Your task to perform on an android device: Clear the shopping cart on target.com. Search for macbook air on target.com, select the first entry, add it to the cart, then select checkout. Image 0: 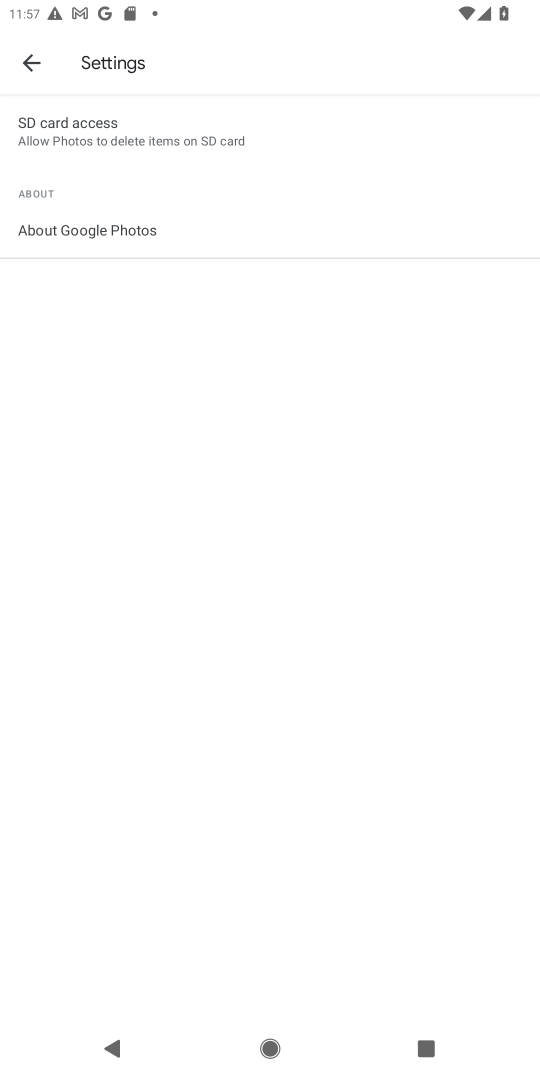
Step 0: press home button
Your task to perform on an android device: Clear the shopping cart on target.com. Search for macbook air on target.com, select the first entry, add it to the cart, then select checkout. Image 1: 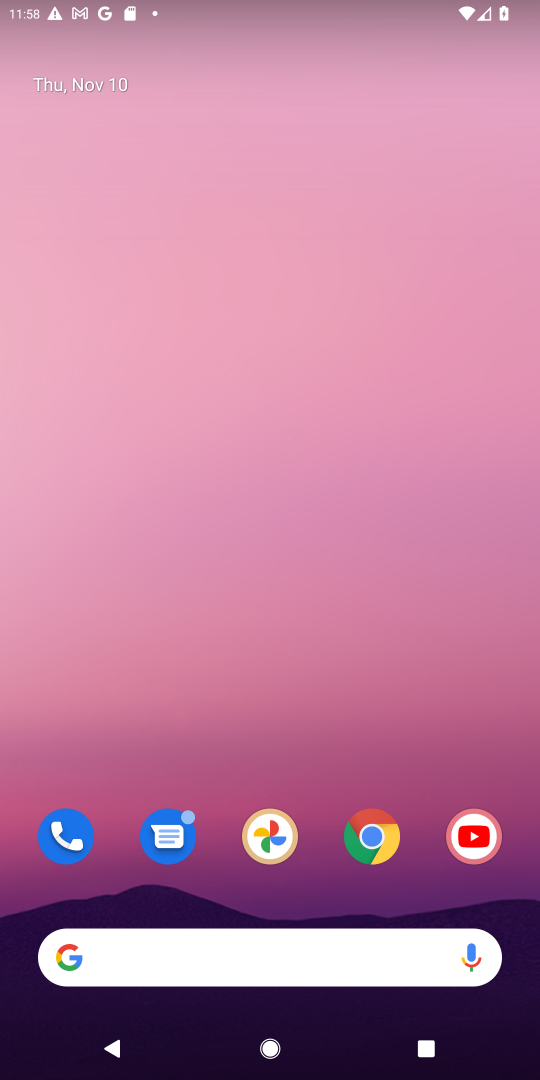
Step 1: click (244, 953)
Your task to perform on an android device: Clear the shopping cart on target.com. Search for macbook air on target.com, select the first entry, add it to the cart, then select checkout. Image 2: 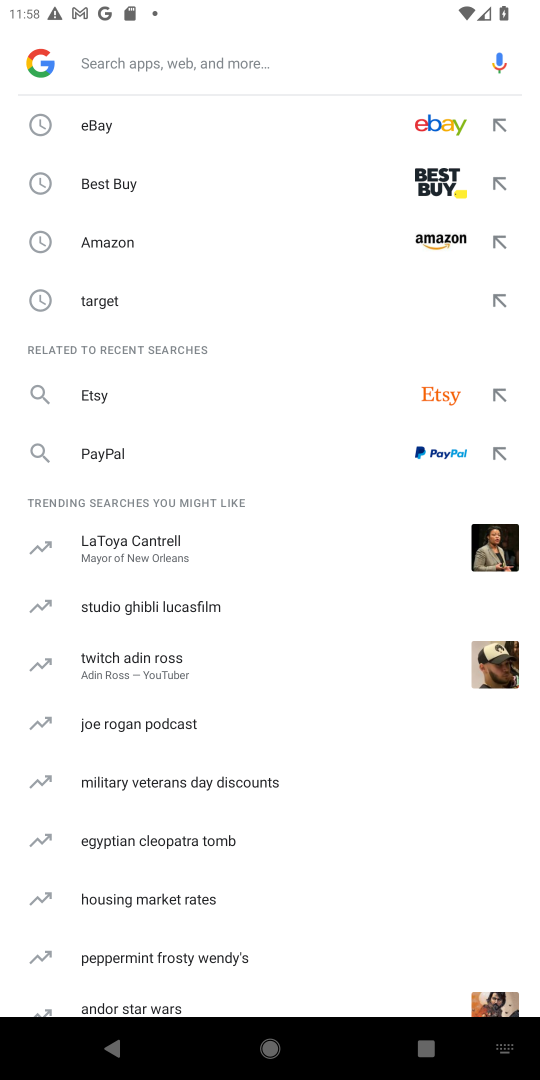
Step 2: type "target.com"
Your task to perform on an android device: Clear the shopping cart on target.com. Search for macbook air on target.com, select the first entry, add it to the cart, then select checkout. Image 3: 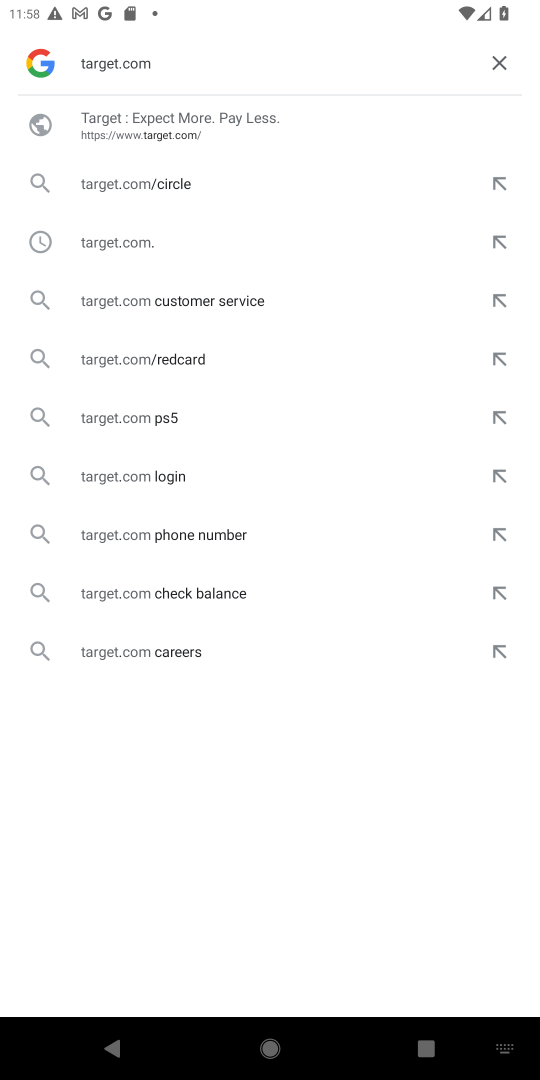
Step 3: click (167, 133)
Your task to perform on an android device: Clear the shopping cart on target.com. Search for macbook air on target.com, select the first entry, add it to the cart, then select checkout. Image 4: 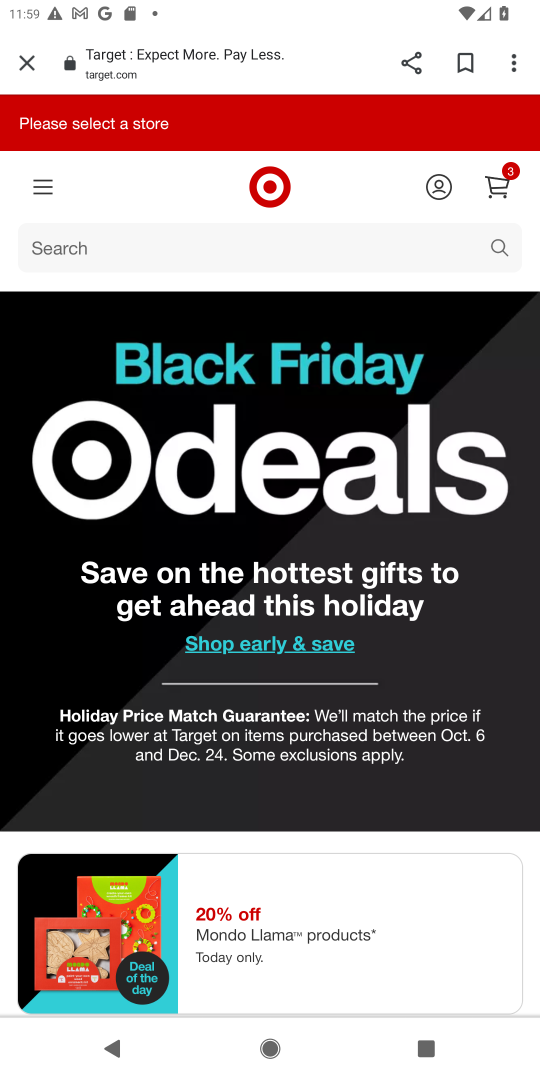
Step 4: click (105, 241)
Your task to perform on an android device: Clear the shopping cart on target.com. Search for macbook air on target.com, select the first entry, add it to the cart, then select checkout. Image 5: 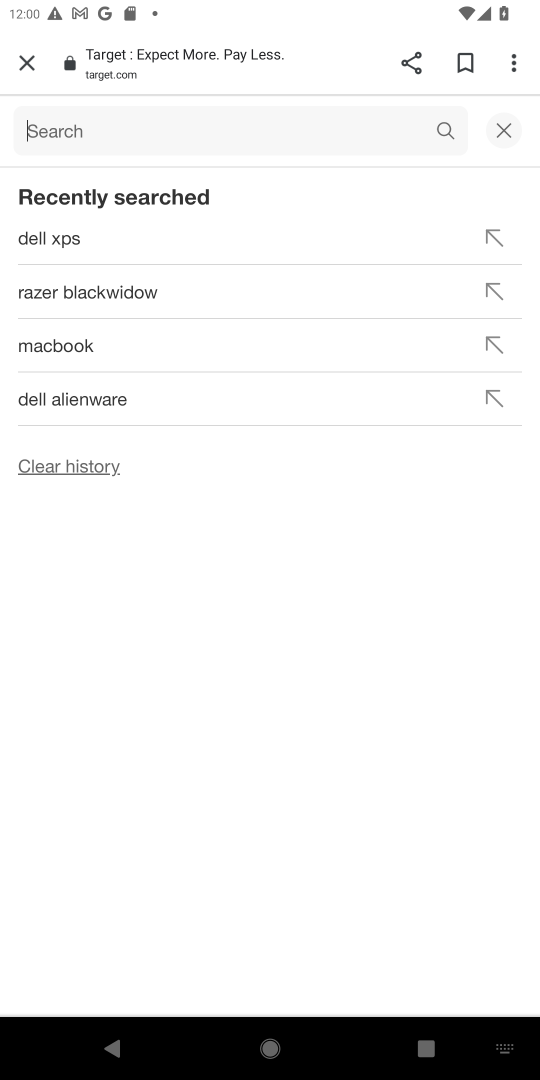
Step 5: type "macbook air"
Your task to perform on an android device: Clear the shopping cart on target.com. Search for macbook air on target.com, select the first entry, add it to the cart, then select checkout. Image 6: 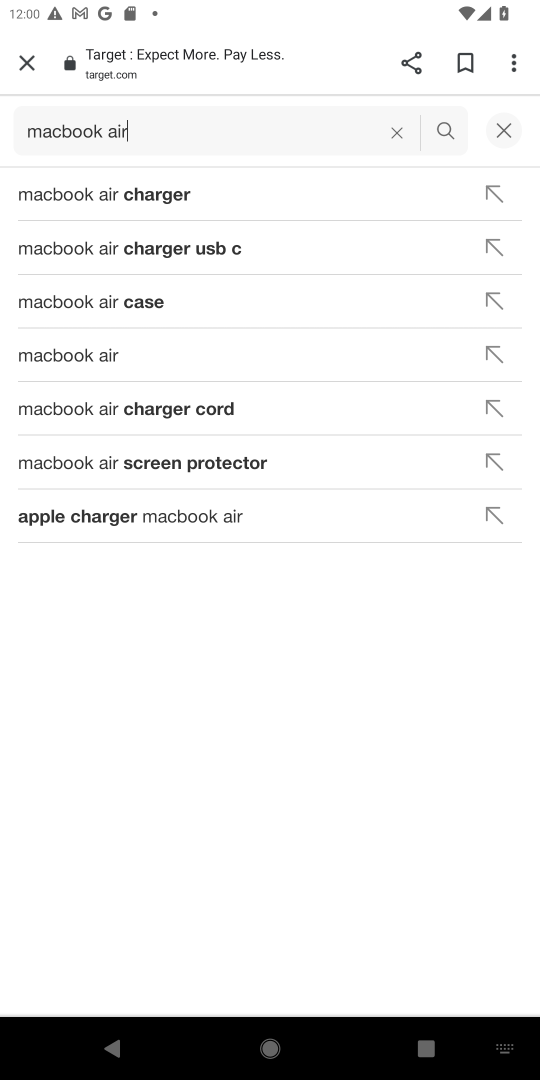
Step 6: click (102, 354)
Your task to perform on an android device: Clear the shopping cart on target.com. Search for macbook air on target.com, select the first entry, add it to the cart, then select checkout. Image 7: 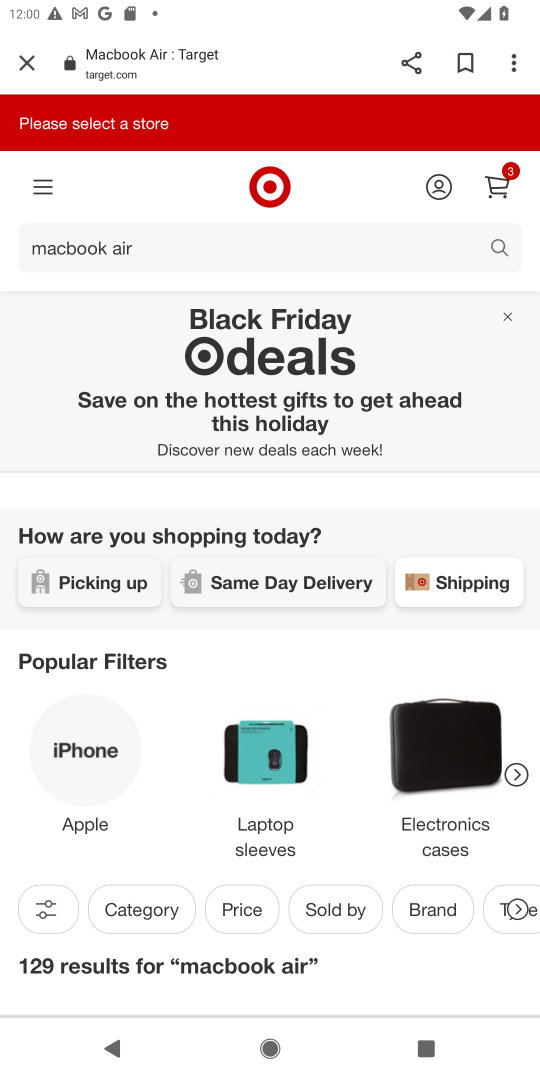
Step 7: drag from (184, 803) to (197, 414)
Your task to perform on an android device: Clear the shopping cart on target.com. Search for macbook air on target.com, select the first entry, add it to the cart, then select checkout. Image 8: 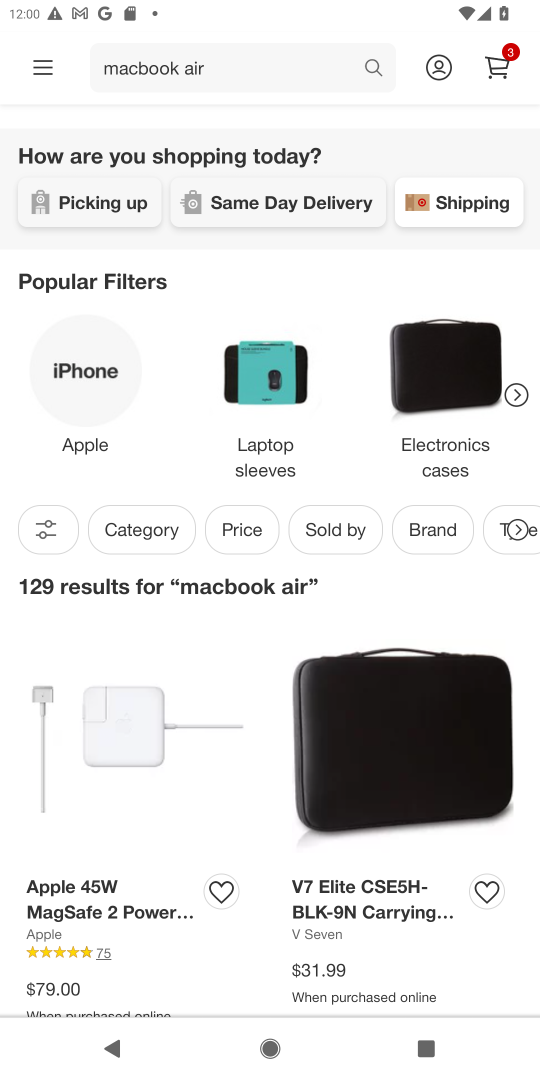
Step 8: click (119, 826)
Your task to perform on an android device: Clear the shopping cart on target.com. Search for macbook air on target.com, select the first entry, add it to the cart, then select checkout. Image 9: 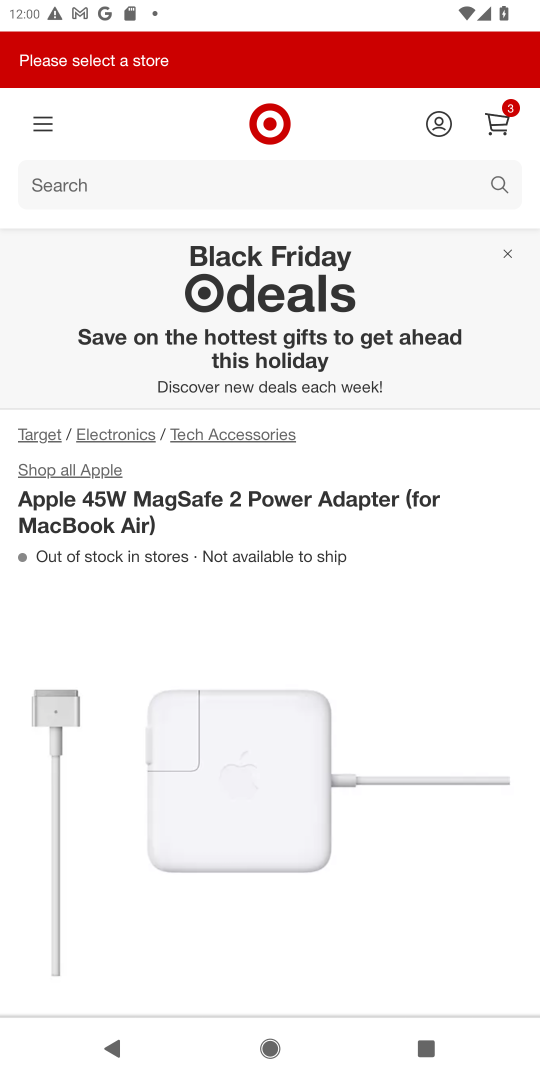
Step 9: drag from (230, 865) to (274, 579)
Your task to perform on an android device: Clear the shopping cart on target.com. Search for macbook air on target.com, select the first entry, add it to the cart, then select checkout. Image 10: 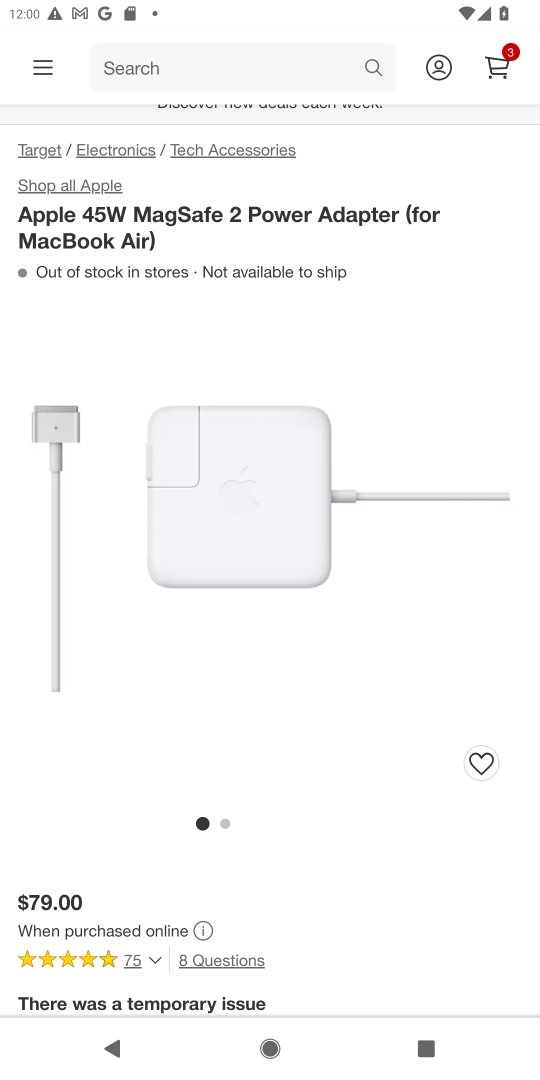
Step 10: drag from (274, 885) to (337, 470)
Your task to perform on an android device: Clear the shopping cart on target.com. Search for macbook air on target.com, select the first entry, add it to the cart, then select checkout. Image 11: 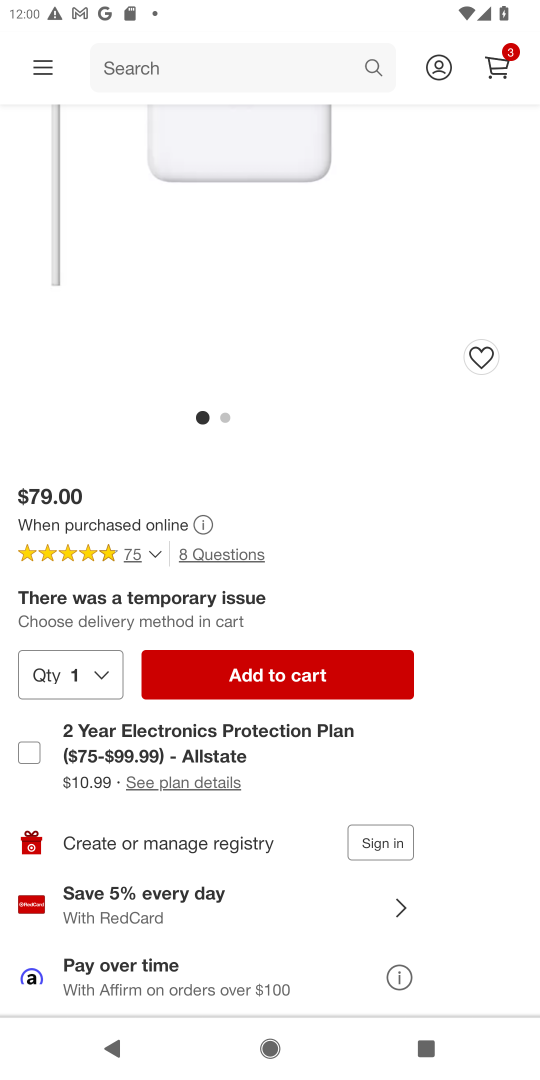
Step 11: click (268, 675)
Your task to perform on an android device: Clear the shopping cart on target.com. Search for macbook air on target.com, select the first entry, add it to the cart, then select checkout. Image 12: 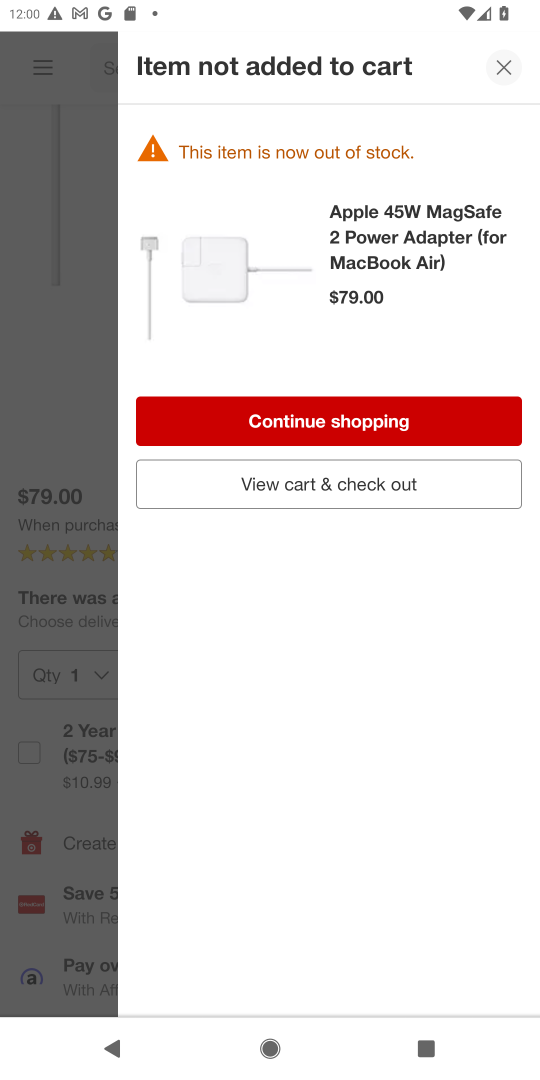
Step 12: click (498, 63)
Your task to perform on an android device: Clear the shopping cart on target.com. Search for macbook air on target.com, select the first entry, add it to the cart, then select checkout. Image 13: 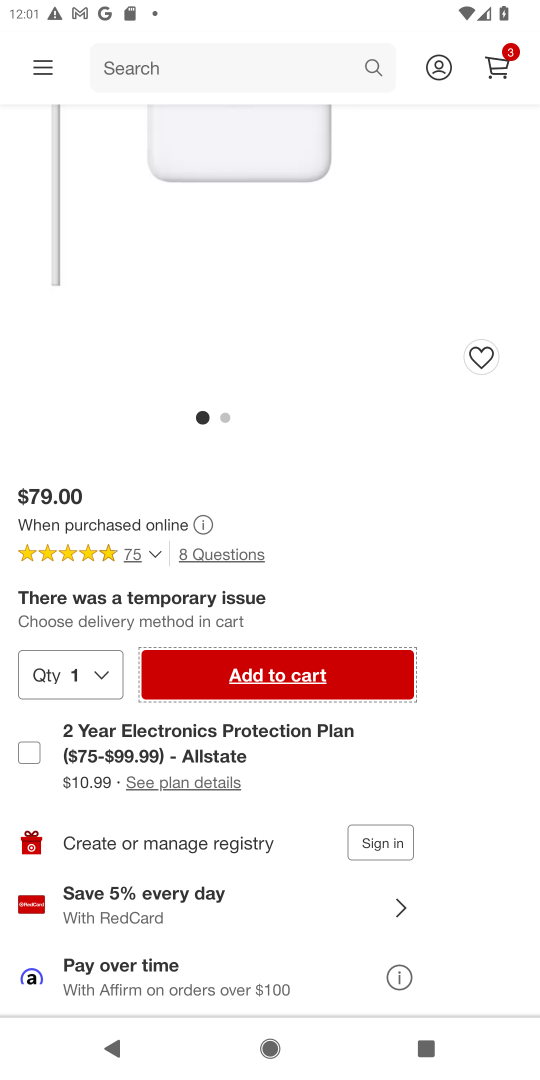
Step 13: click (498, 62)
Your task to perform on an android device: Clear the shopping cart on target.com. Search for macbook air on target.com, select the first entry, add it to the cart, then select checkout. Image 14: 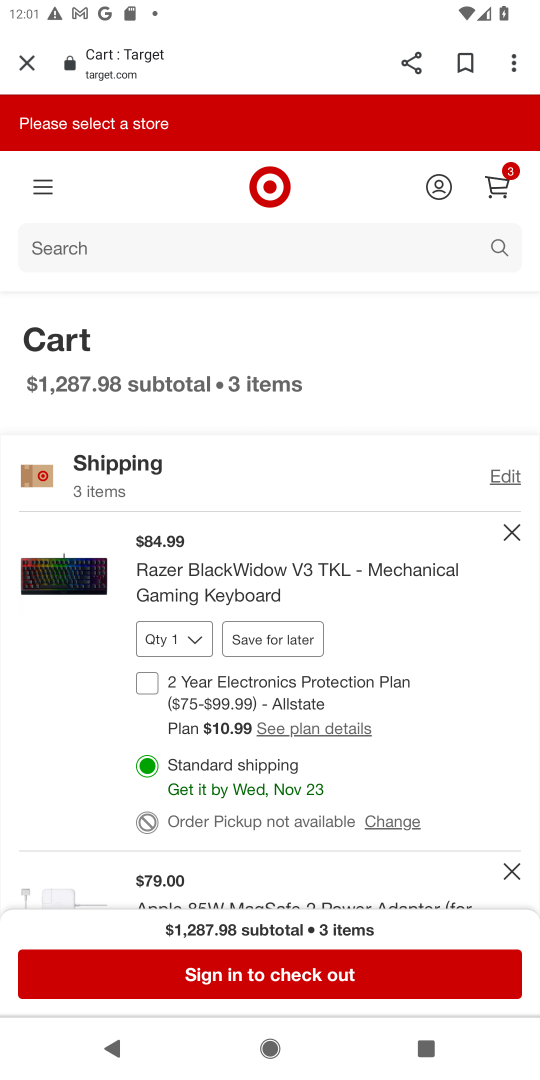
Step 14: click (259, 976)
Your task to perform on an android device: Clear the shopping cart on target.com. Search for macbook air on target.com, select the first entry, add it to the cart, then select checkout. Image 15: 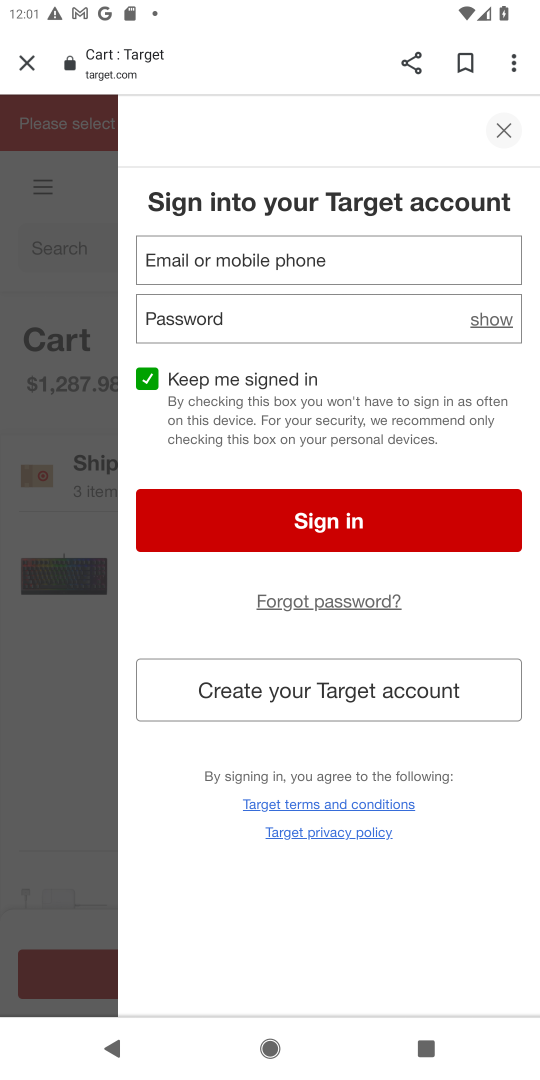
Step 15: task complete